Your task to perform on an android device: delete a single message in the gmail app Image 0: 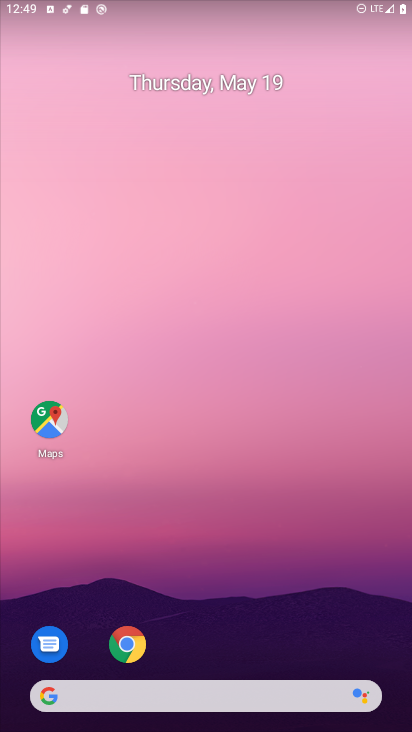
Step 0: drag from (300, 645) to (192, 41)
Your task to perform on an android device: delete a single message in the gmail app Image 1: 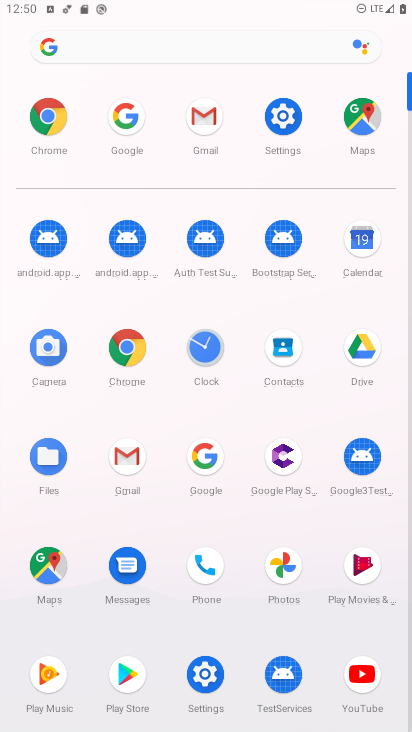
Step 1: click (119, 470)
Your task to perform on an android device: delete a single message in the gmail app Image 2: 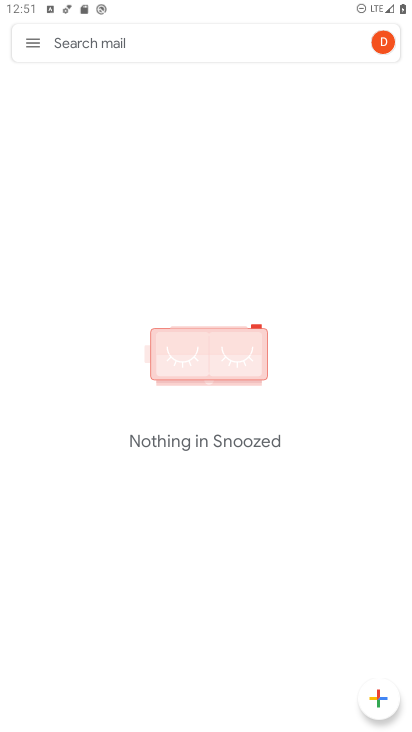
Step 2: task complete